Your task to perform on an android device: turn on improve location accuracy Image 0: 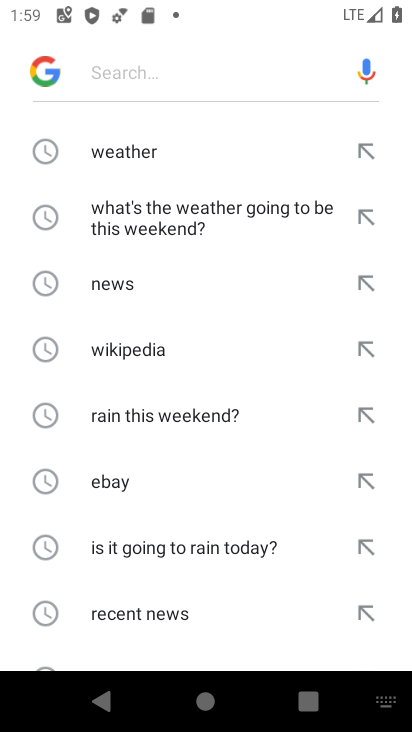
Step 0: press home button
Your task to perform on an android device: turn on improve location accuracy Image 1: 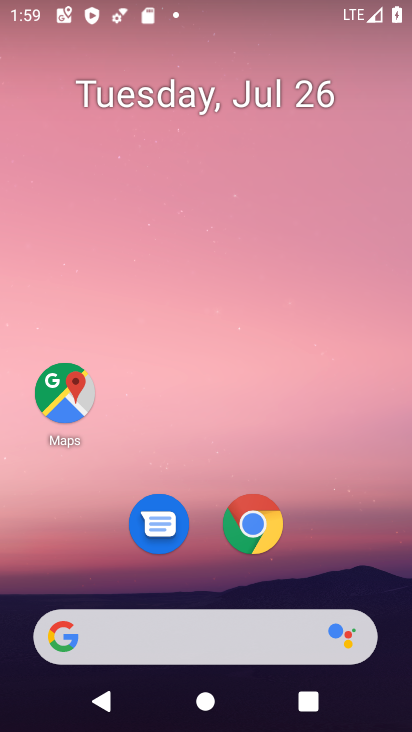
Step 1: drag from (327, 568) to (314, 94)
Your task to perform on an android device: turn on improve location accuracy Image 2: 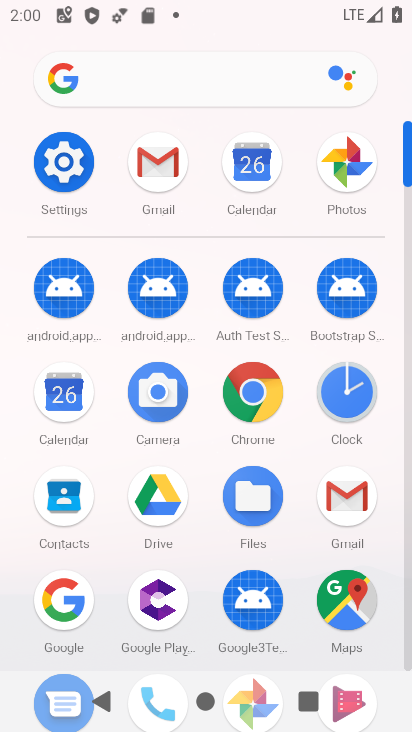
Step 2: click (77, 160)
Your task to perform on an android device: turn on improve location accuracy Image 3: 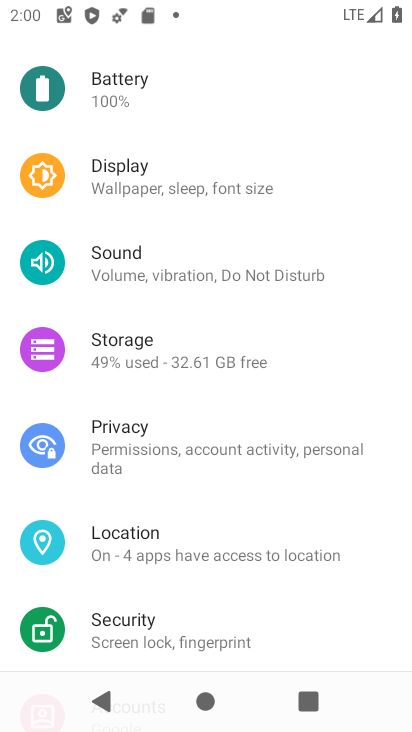
Step 3: click (174, 537)
Your task to perform on an android device: turn on improve location accuracy Image 4: 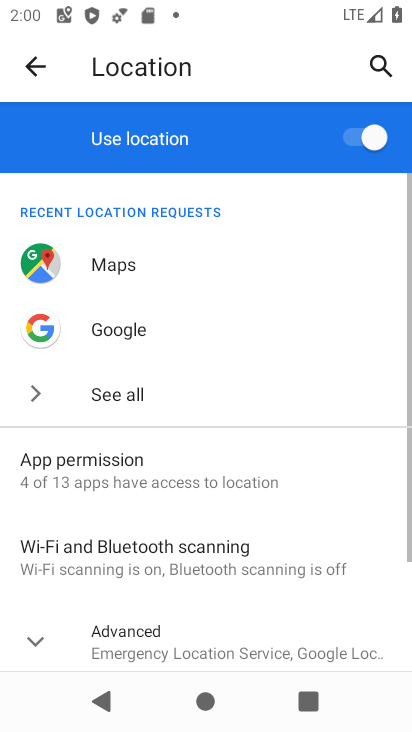
Step 4: click (41, 639)
Your task to perform on an android device: turn on improve location accuracy Image 5: 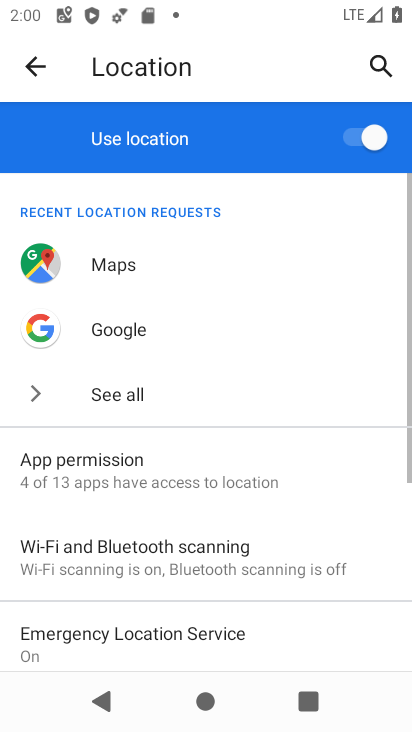
Step 5: drag from (273, 485) to (332, 203)
Your task to perform on an android device: turn on improve location accuracy Image 6: 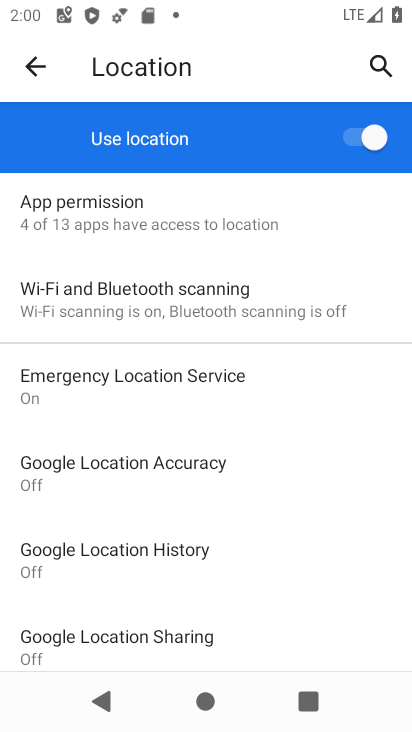
Step 6: click (184, 470)
Your task to perform on an android device: turn on improve location accuracy Image 7: 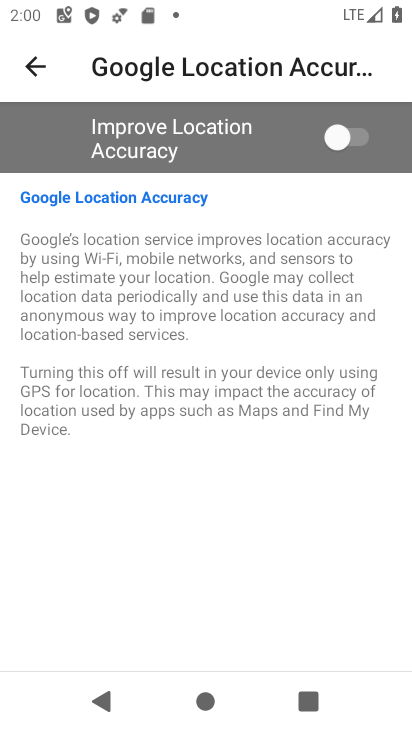
Step 7: click (355, 129)
Your task to perform on an android device: turn on improve location accuracy Image 8: 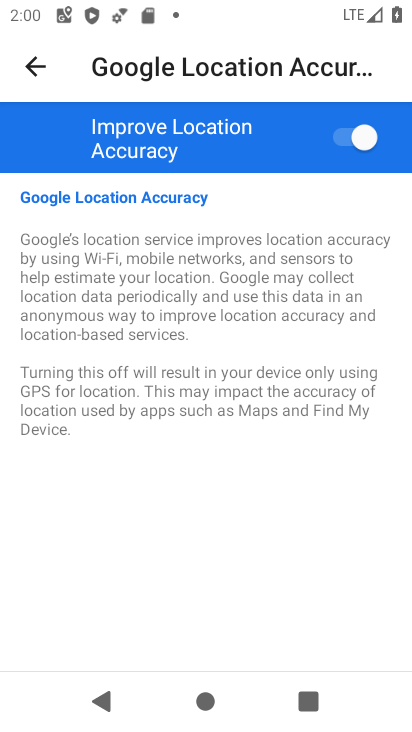
Step 8: task complete